Your task to perform on an android device: Open Google Image 0: 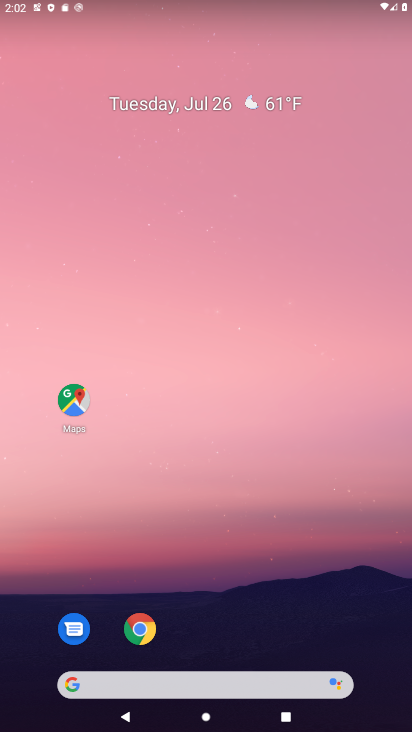
Step 0: click (164, 682)
Your task to perform on an android device: Open Google Image 1: 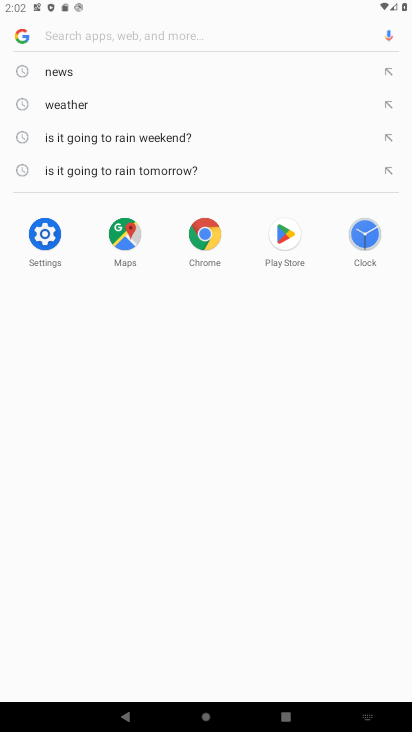
Step 1: task complete